Your task to perform on an android device: choose inbox layout in the gmail app Image 0: 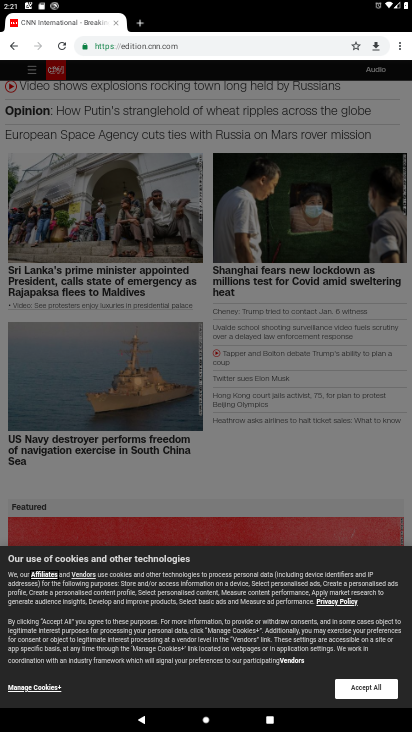
Step 0: press home button
Your task to perform on an android device: choose inbox layout in the gmail app Image 1: 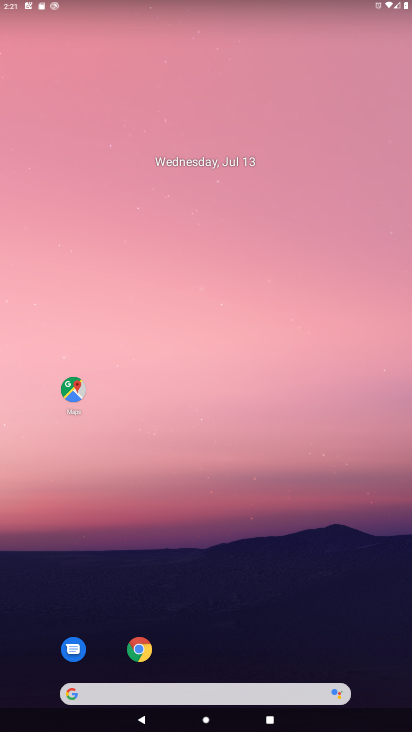
Step 1: drag from (319, 585) to (312, 51)
Your task to perform on an android device: choose inbox layout in the gmail app Image 2: 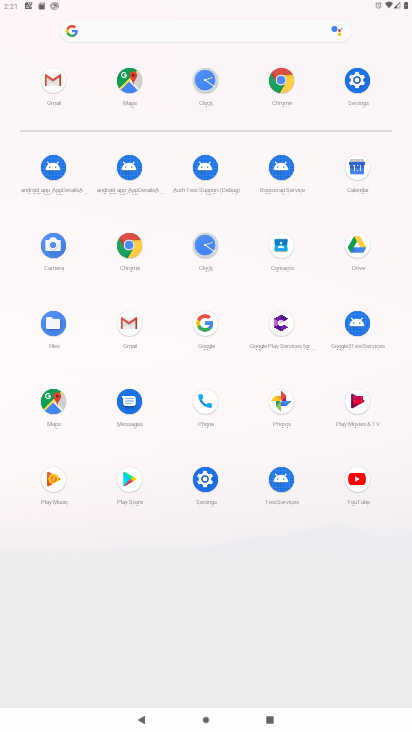
Step 2: click (123, 320)
Your task to perform on an android device: choose inbox layout in the gmail app Image 3: 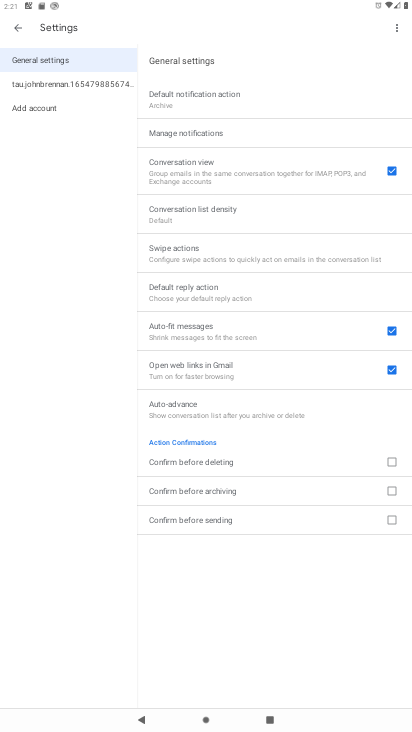
Step 3: click (95, 80)
Your task to perform on an android device: choose inbox layout in the gmail app Image 4: 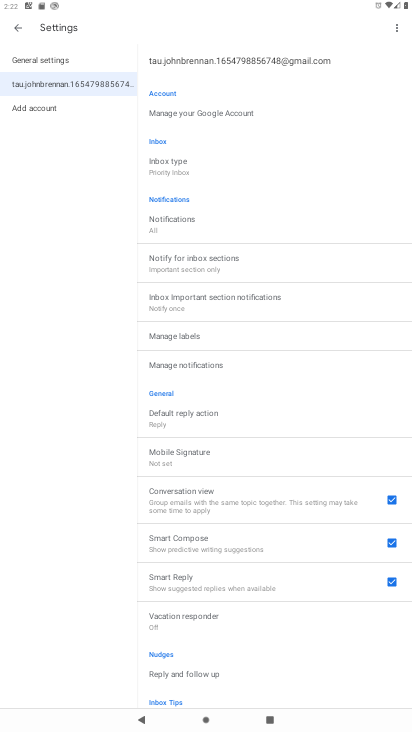
Step 4: click (159, 147)
Your task to perform on an android device: choose inbox layout in the gmail app Image 5: 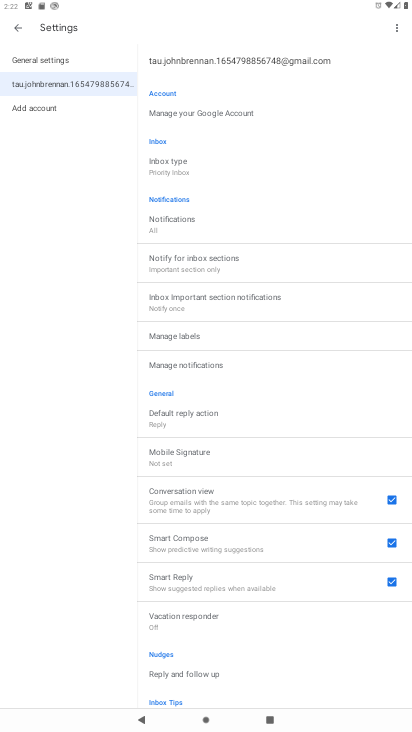
Step 5: click (168, 157)
Your task to perform on an android device: choose inbox layout in the gmail app Image 6: 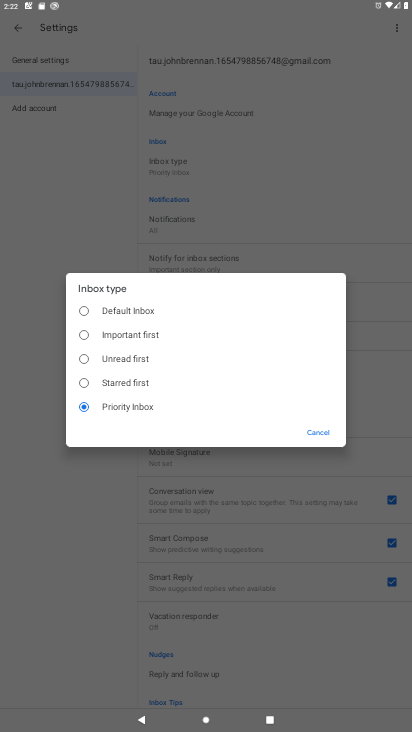
Step 6: click (102, 330)
Your task to perform on an android device: choose inbox layout in the gmail app Image 7: 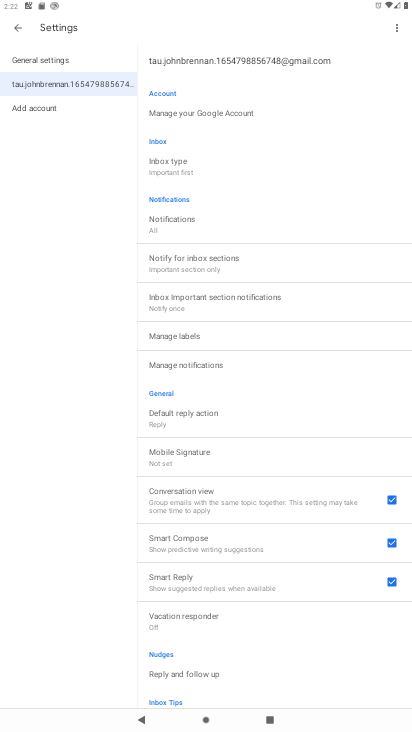
Step 7: task complete